Your task to perform on an android device: set the stopwatch Image 0: 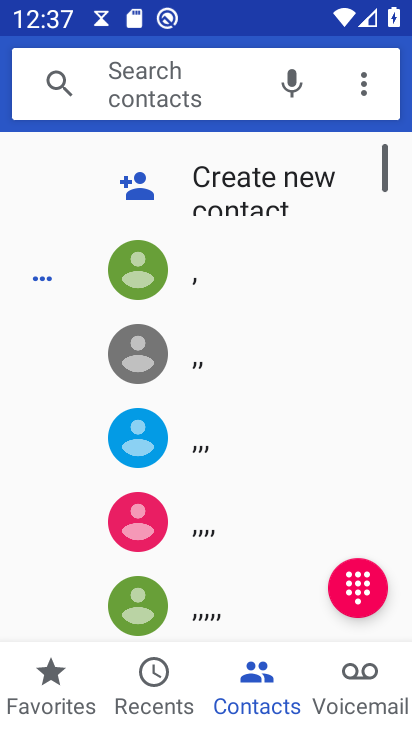
Step 0: drag from (339, 536) to (388, 22)
Your task to perform on an android device: set the stopwatch Image 1: 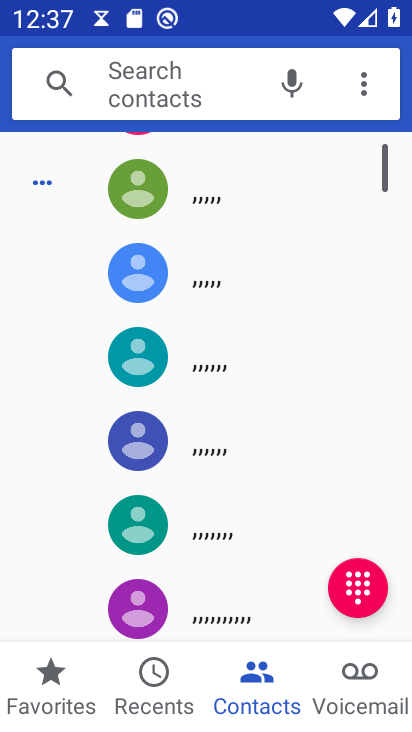
Step 1: press home button
Your task to perform on an android device: set the stopwatch Image 2: 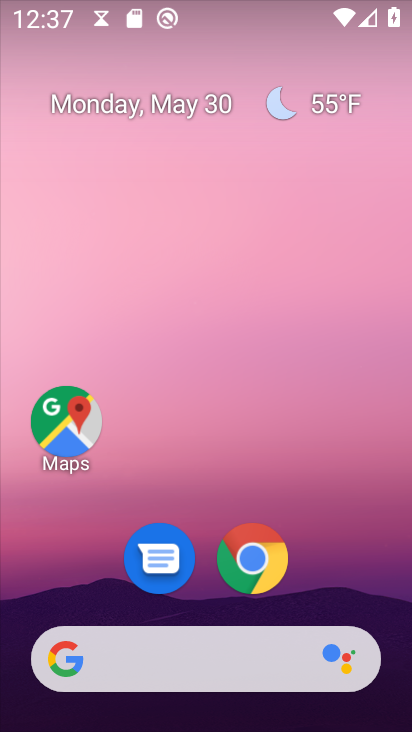
Step 2: drag from (358, 565) to (398, 118)
Your task to perform on an android device: set the stopwatch Image 3: 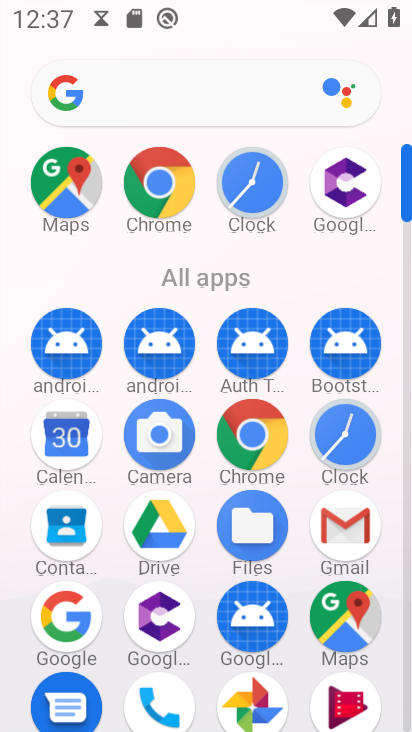
Step 3: click (350, 442)
Your task to perform on an android device: set the stopwatch Image 4: 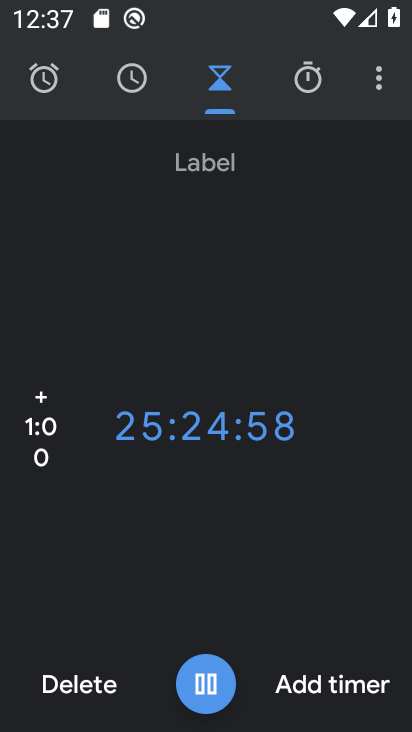
Step 4: click (305, 103)
Your task to perform on an android device: set the stopwatch Image 5: 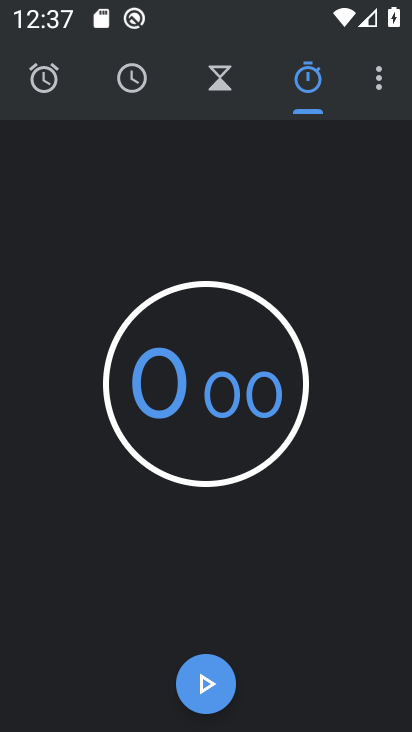
Step 5: click (200, 682)
Your task to perform on an android device: set the stopwatch Image 6: 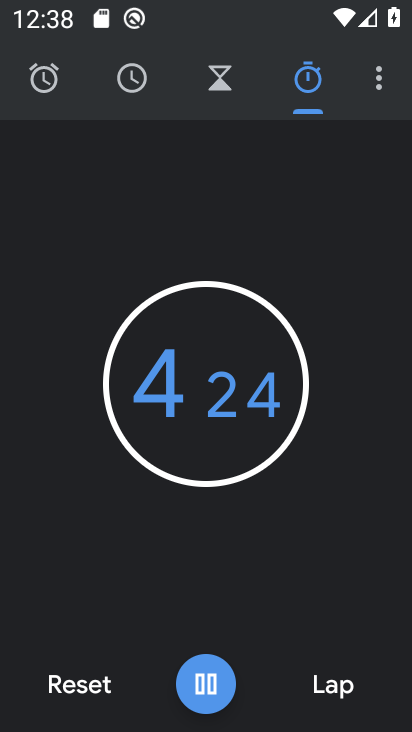
Step 6: task complete